Your task to perform on an android device: turn off javascript in the chrome app Image 0: 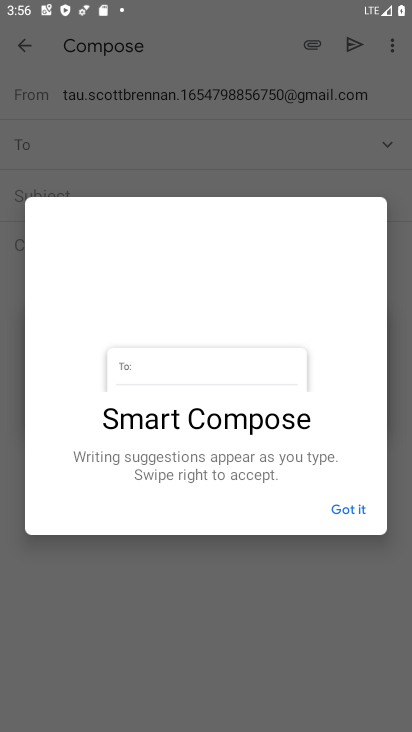
Step 0: press home button
Your task to perform on an android device: turn off javascript in the chrome app Image 1: 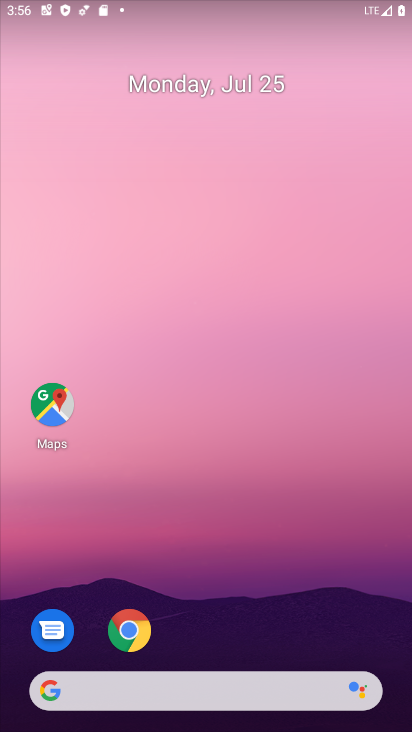
Step 1: drag from (212, 607) to (224, 0)
Your task to perform on an android device: turn off javascript in the chrome app Image 2: 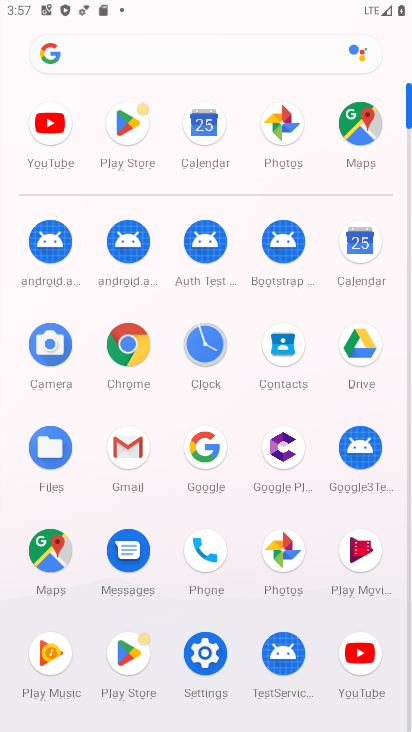
Step 2: click (137, 352)
Your task to perform on an android device: turn off javascript in the chrome app Image 3: 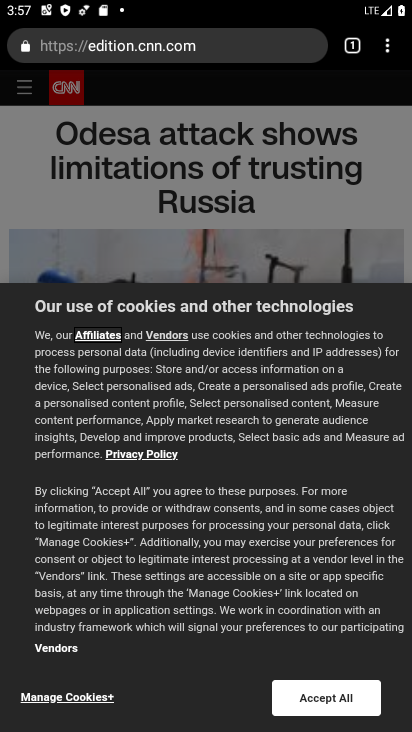
Step 3: click (390, 41)
Your task to perform on an android device: turn off javascript in the chrome app Image 4: 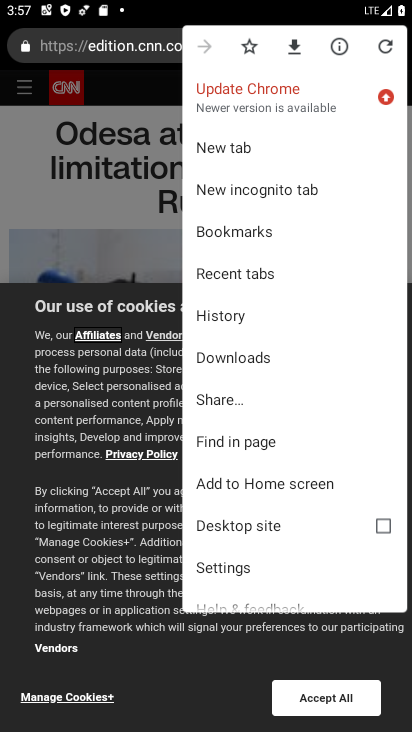
Step 4: click (238, 569)
Your task to perform on an android device: turn off javascript in the chrome app Image 5: 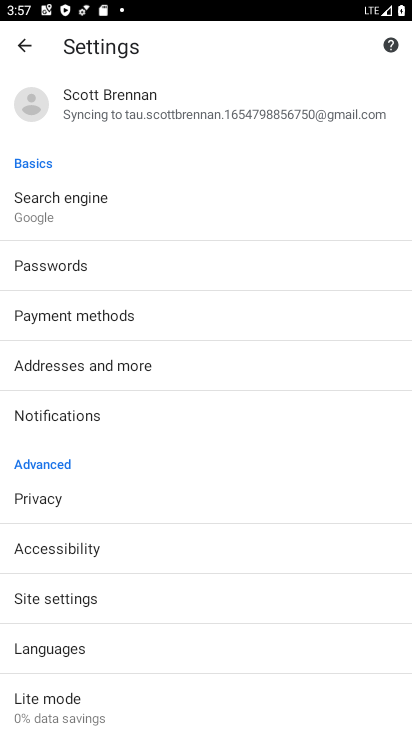
Step 5: drag from (165, 586) to (169, 260)
Your task to perform on an android device: turn off javascript in the chrome app Image 6: 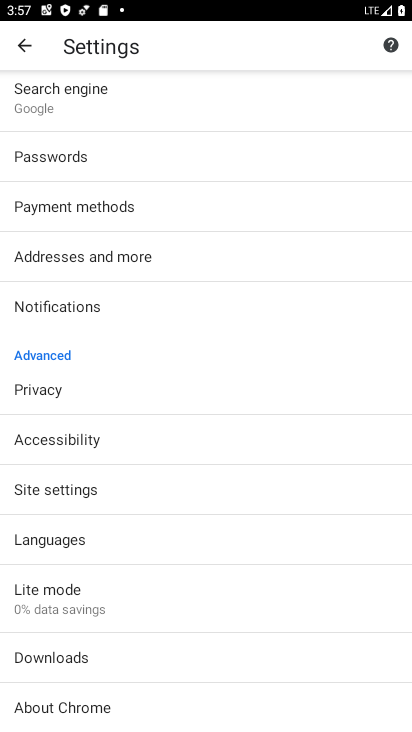
Step 6: click (66, 488)
Your task to perform on an android device: turn off javascript in the chrome app Image 7: 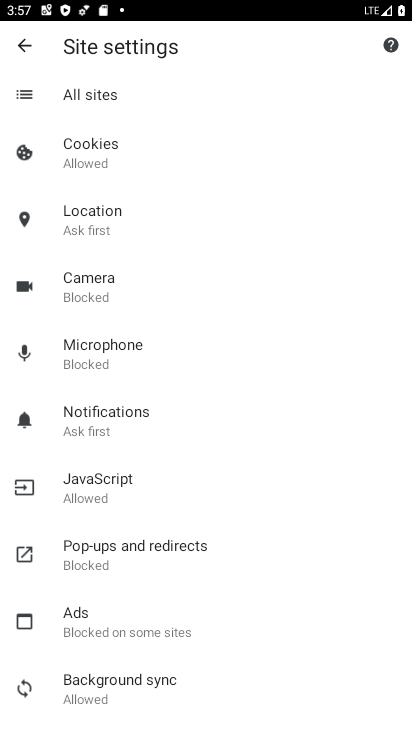
Step 7: click (107, 497)
Your task to perform on an android device: turn off javascript in the chrome app Image 8: 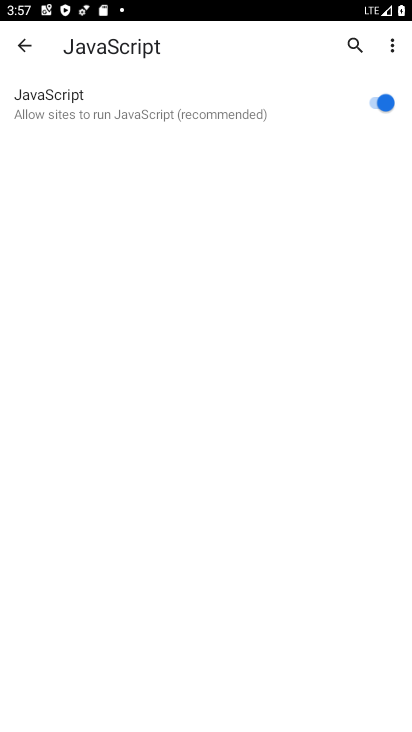
Step 8: click (343, 102)
Your task to perform on an android device: turn off javascript in the chrome app Image 9: 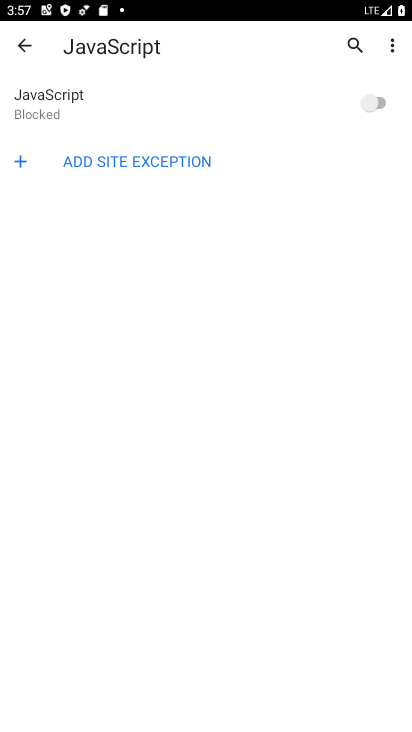
Step 9: task complete